Your task to perform on an android device: toggle notifications settings in the gmail app Image 0: 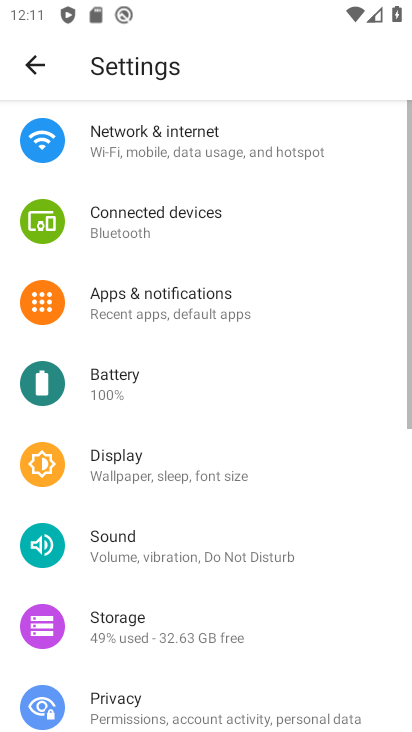
Step 0: press home button
Your task to perform on an android device: toggle notifications settings in the gmail app Image 1: 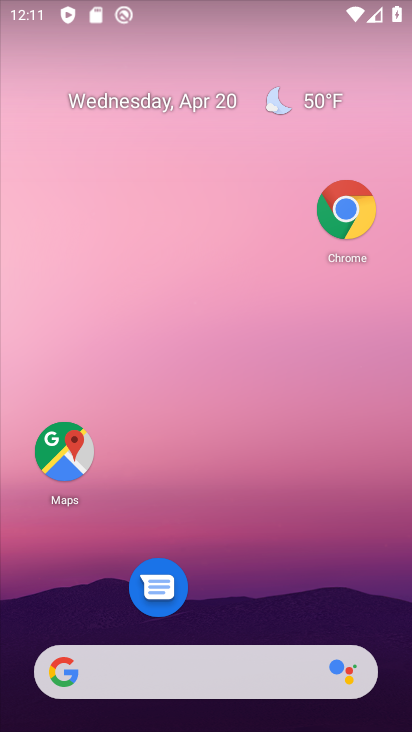
Step 1: drag from (225, 550) to (316, 65)
Your task to perform on an android device: toggle notifications settings in the gmail app Image 2: 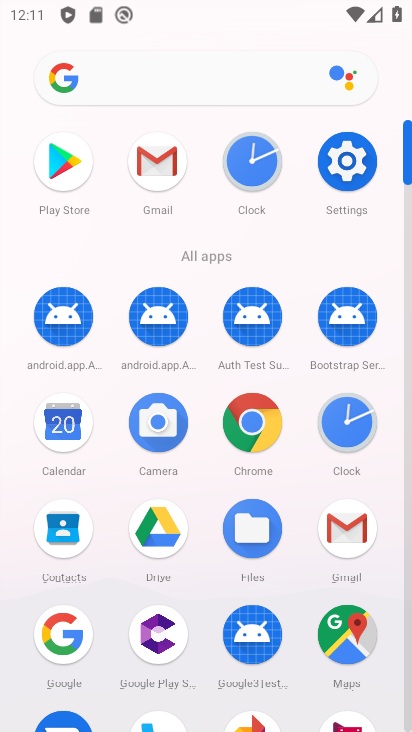
Step 2: click (350, 540)
Your task to perform on an android device: toggle notifications settings in the gmail app Image 3: 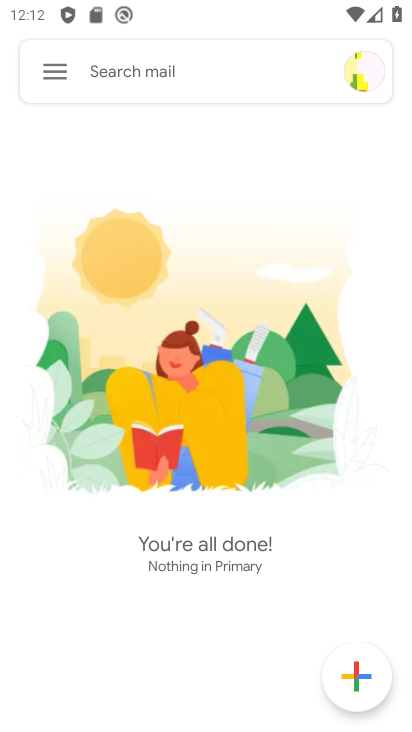
Step 3: click (56, 73)
Your task to perform on an android device: toggle notifications settings in the gmail app Image 4: 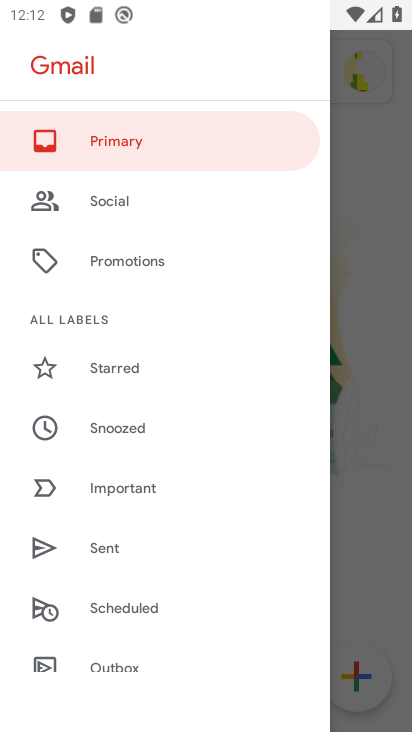
Step 4: drag from (123, 617) to (192, 321)
Your task to perform on an android device: toggle notifications settings in the gmail app Image 5: 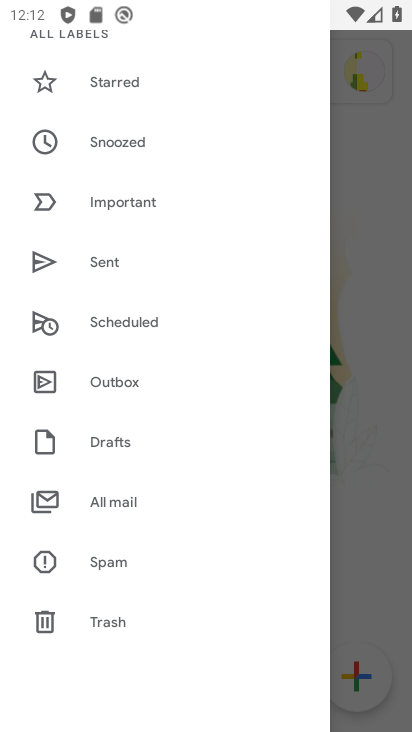
Step 5: drag from (167, 702) to (117, 314)
Your task to perform on an android device: toggle notifications settings in the gmail app Image 6: 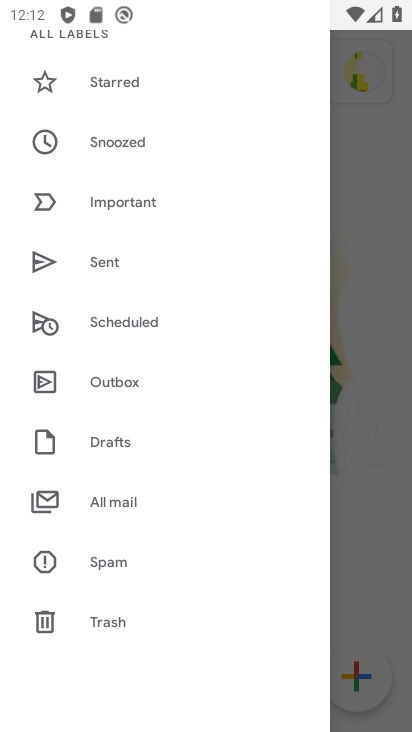
Step 6: drag from (126, 563) to (239, 202)
Your task to perform on an android device: toggle notifications settings in the gmail app Image 7: 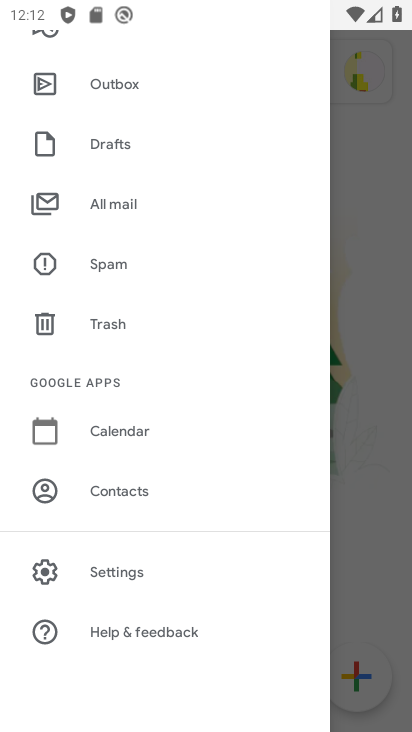
Step 7: click (115, 578)
Your task to perform on an android device: toggle notifications settings in the gmail app Image 8: 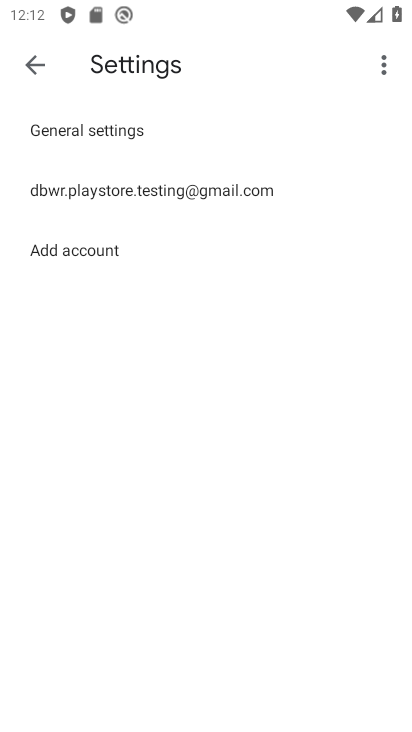
Step 8: click (115, 124)
Your task to perform on an android device: toggle notifications settings in the gmail app Image 9: 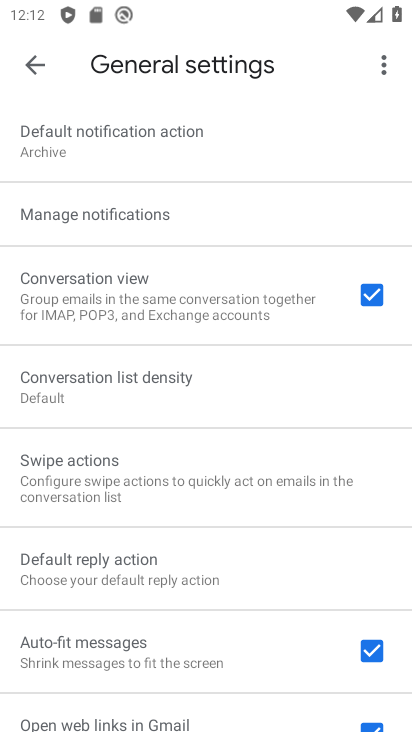
Step 9: click (143, 219)
Your task to perform on an android device: toggle notifications settings in the gmail app Image 10: 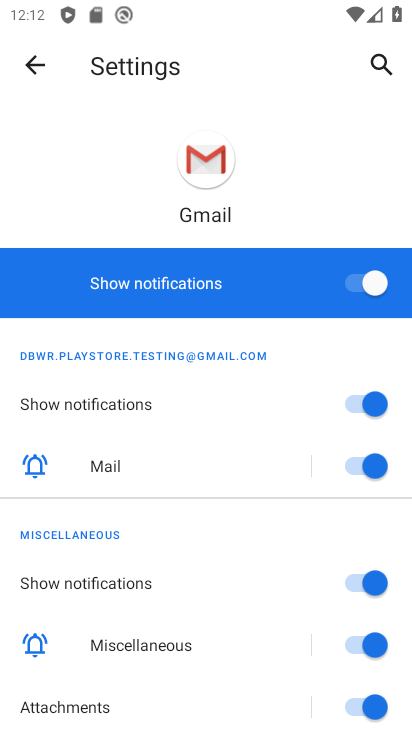
Step 10: click (367, 282)
Your task to perform on an android device: toggle notifications settings in the gmail app Image 11: 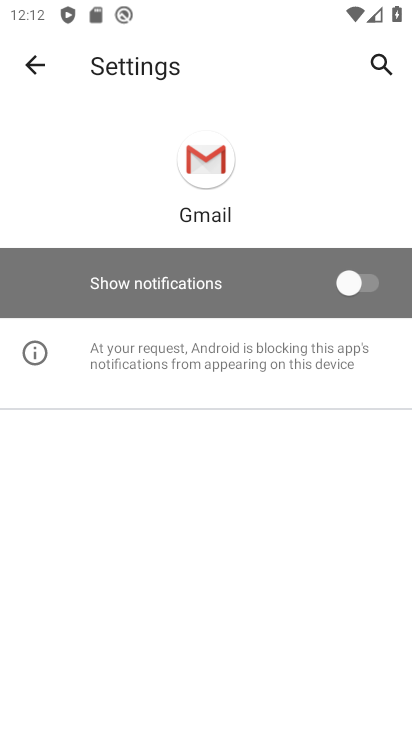
Step 11: task complete